Your task to perform on an android device: Go to Yahoo.com Image 0: 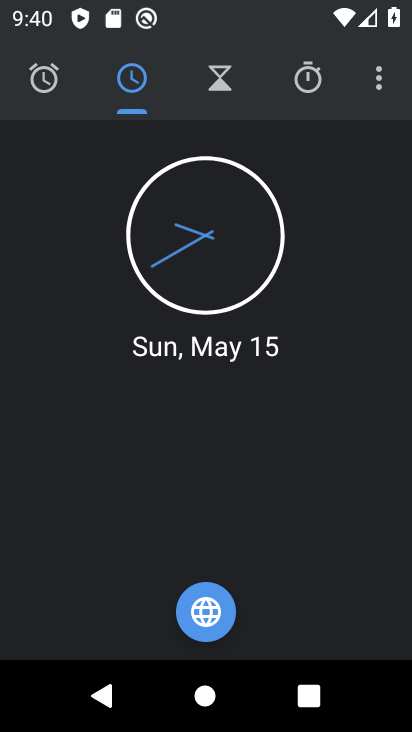
Step 0: press home button
Your task to perform on an android device: Go to Yahoo.com Image 1: 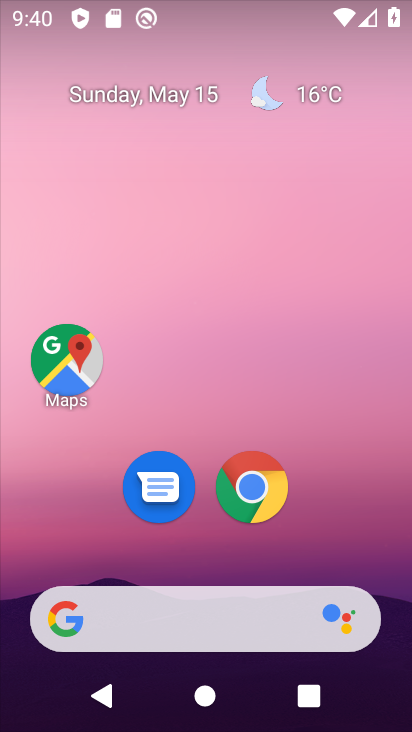
Step 1: click (260, 487)
Your task to perform on an android device: Go to Yahoo.com Image 2: 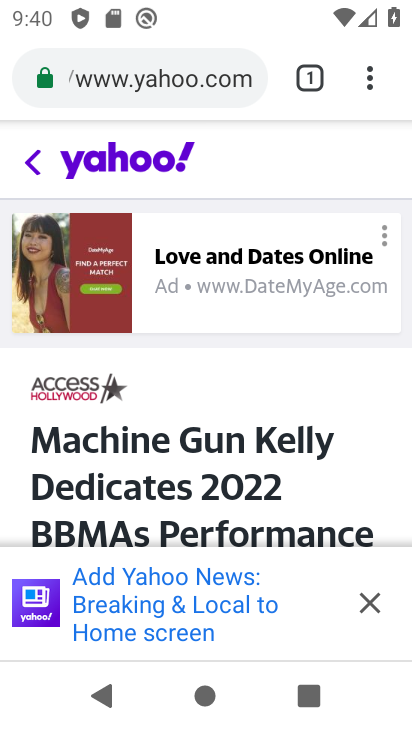
Step 2: task complete